Your task to perform on an android device: Open the map Image 0: 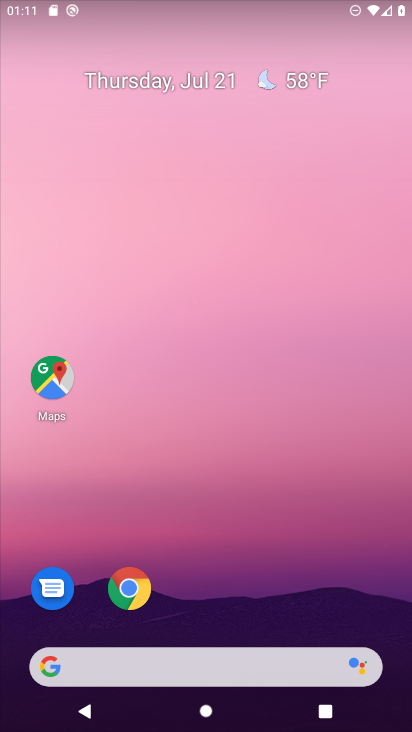
Step 0: click (40, 379)
Your task to perform on an android device: Open the map Image 1: 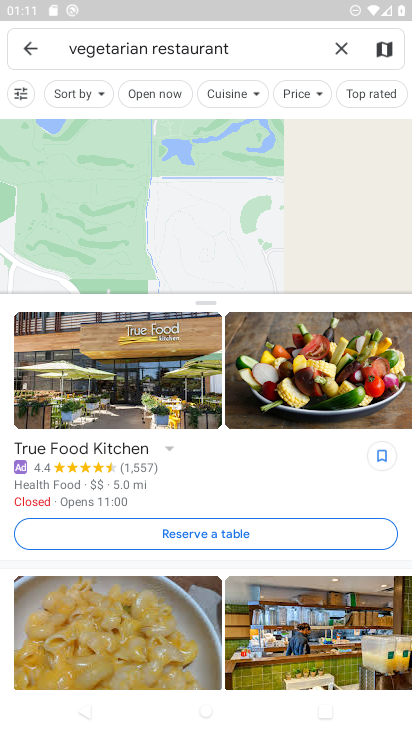
Step 1: click (33, 49)
Your task to perform on an android device: Open the map Image 2: 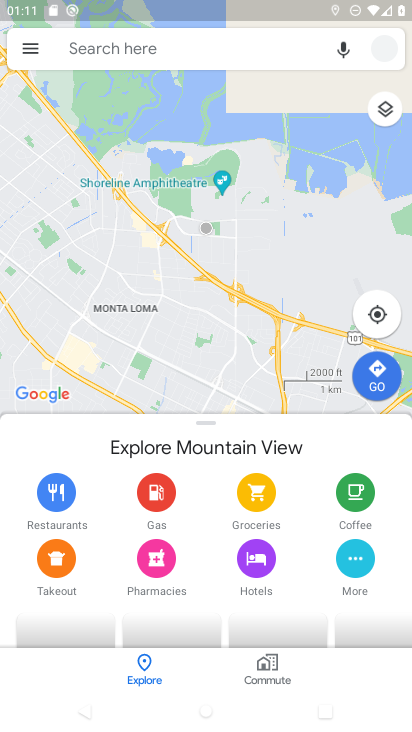
Step 2: task complete